Your task to perform on an android device: turn pop-ups off in chrome Image 0: 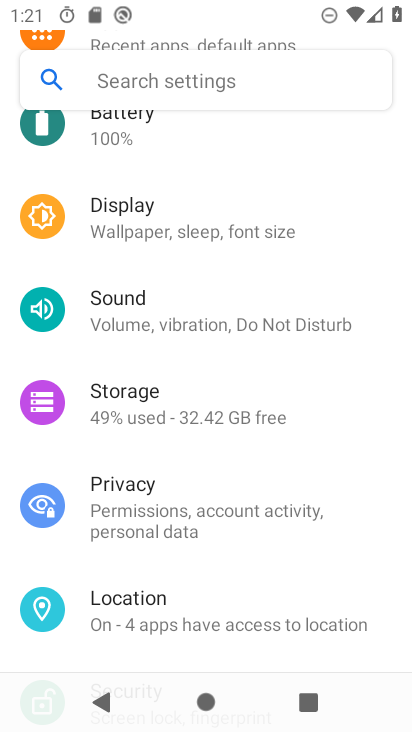
Step 0: press home button
Your task to perform on an android device: turn pop-ups off in chrome Image 1: 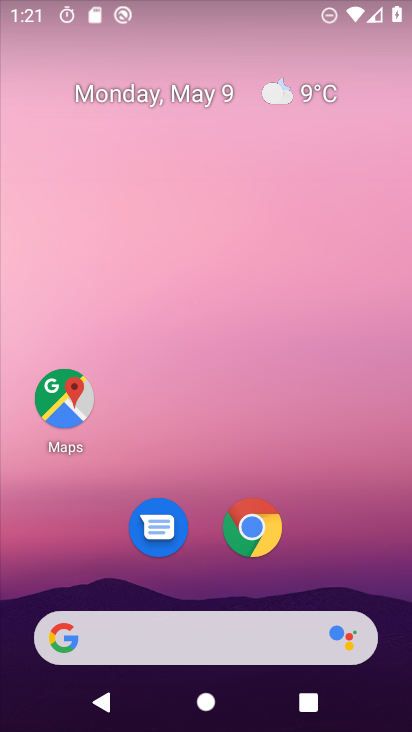
Step 1: click (268, 527)
Your task to perform on an android device: turn pop-ups off in chrome Image 2: 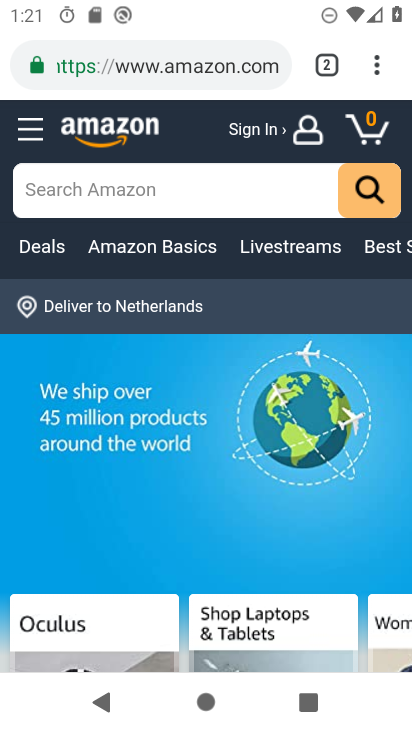
Step 2: drag from (381, 70) to (166, 569)
Your task to perform on an android device: turn pop-ups off in chrome Image 3: 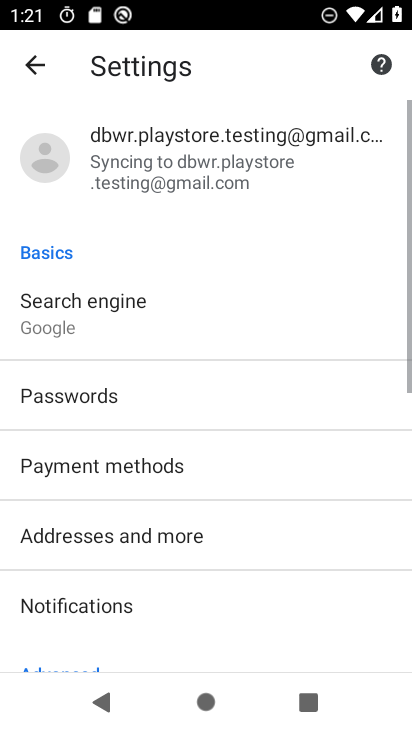
Step 3: drag from (222, 600) to (283, 113)
Your task to perform on an android device: turn pop-ups off in chrome Image 4: 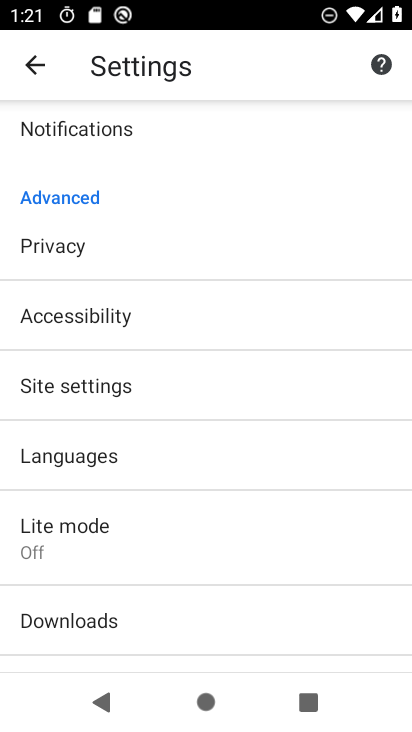
Step 4: click (46, 380)
Your task to perform on an android device: turn pop-ups off in chrome Image 5: 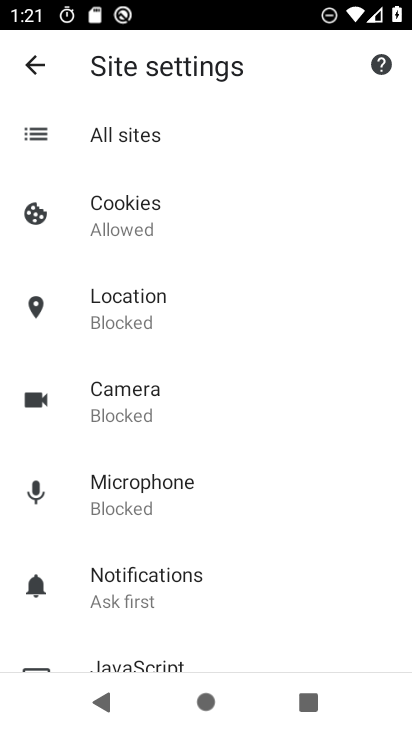
Step 5: drag from (168, 635) to (239, 182)
Your task to perform on an android device: turn pop-ups off in chrome Image 6: 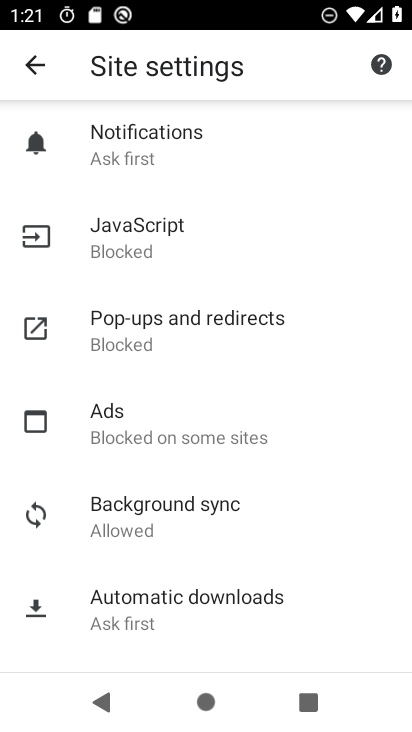
Step 6: click (180, 320)
Your task to perform on an android device: turn pop-ups off in chrome Image 7: 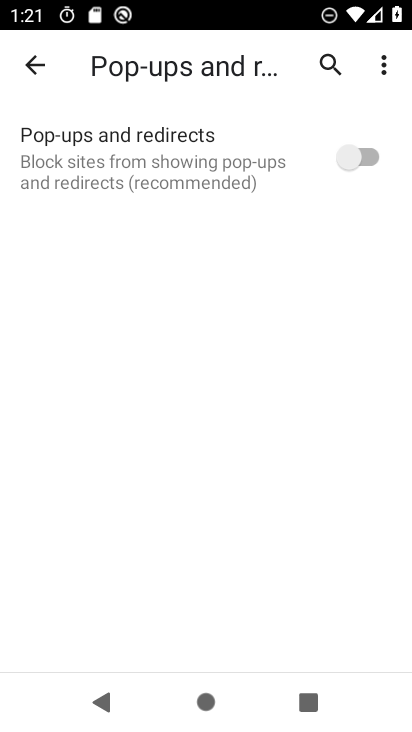
Step 7: task complete